Your task to perform on an android device: turn off picture-in-picture Image 0: 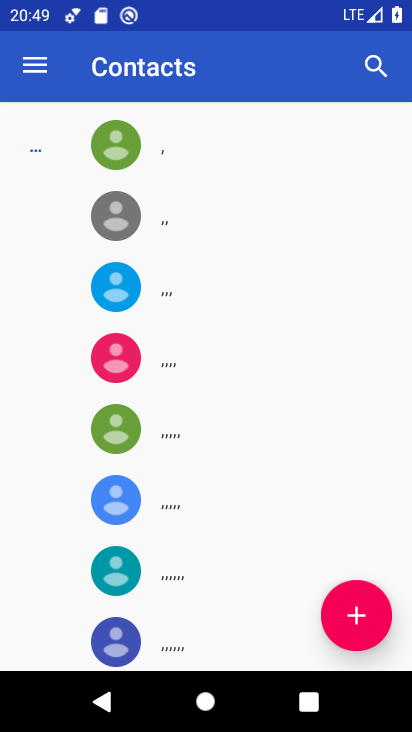
Step 0: press home button
Your task to perform on an android device: turn off picture-in-picture Image 1: 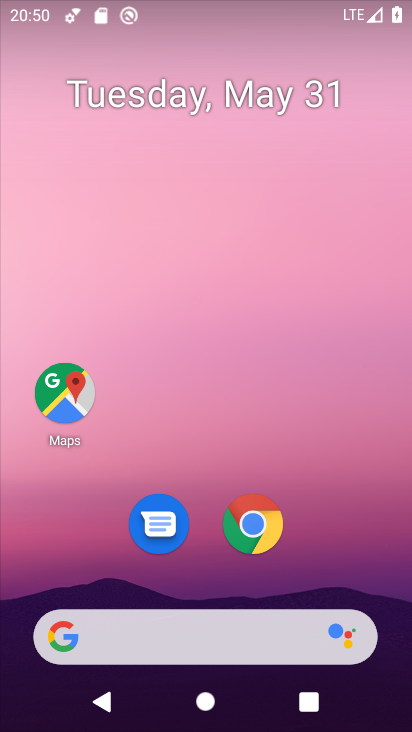
Step 1: click (259, 531)
Your task to perform on an android device: turn off picture-in-picture Image 2: 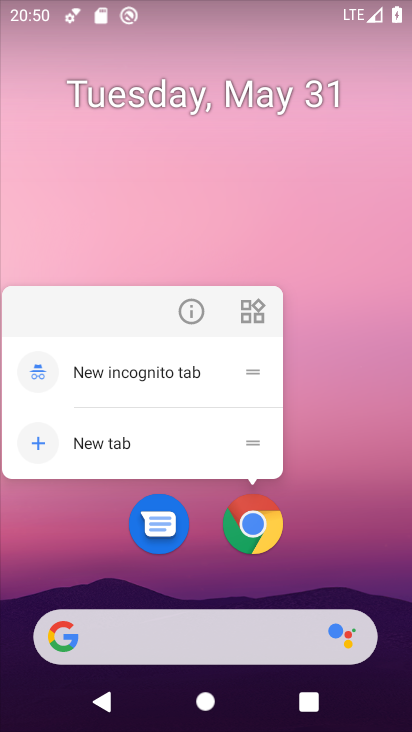
Step 2: click (192, 303)
Your task to perform on an android device: turn off picture-in-picture Image 3: 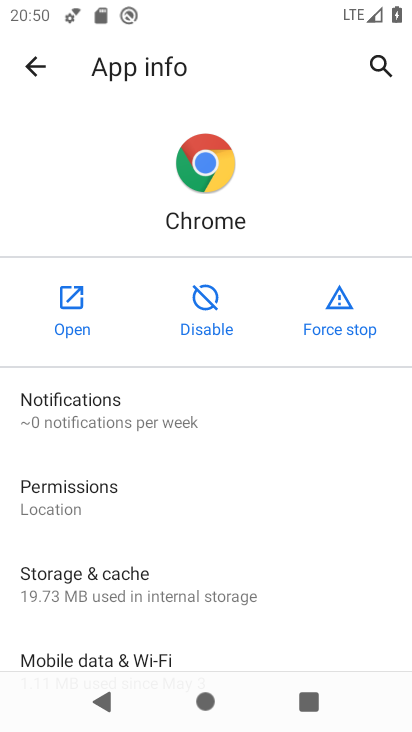
Step 3: drag from (208, 544) to (238, 163)
Your task to perform on an android device: turn off picture-in-picture Image 4: 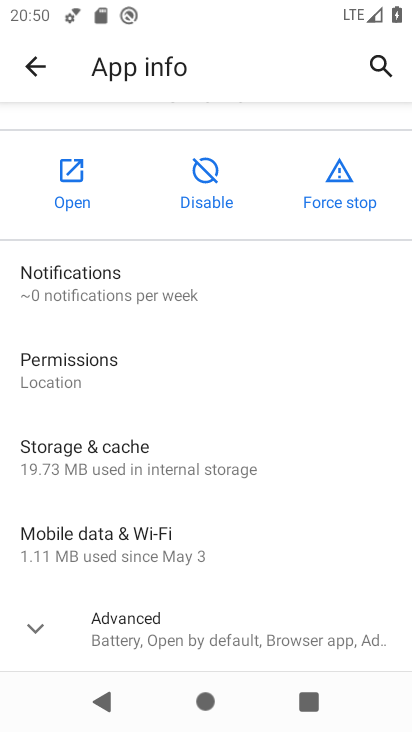
Step 4: click (33, 623)
Your task to perform on an android device: turn off picture-in-picture Image 5: 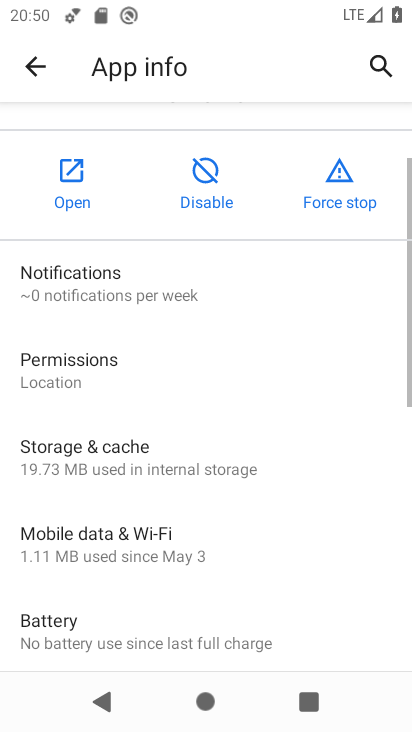
Step 5: drag from (267, 482) to (320, 0)
Your task to perform on an android device: turn off picture-in-picture Image 6: 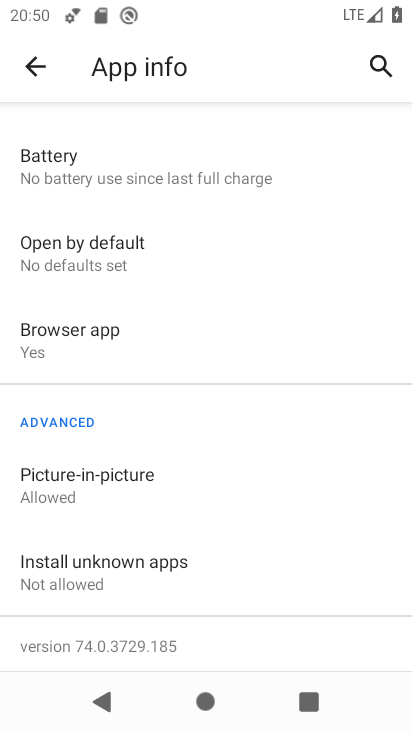
Step 6: click (91, 487)
Your task to perform on an android device: turn off picture-in-picture Image 7: 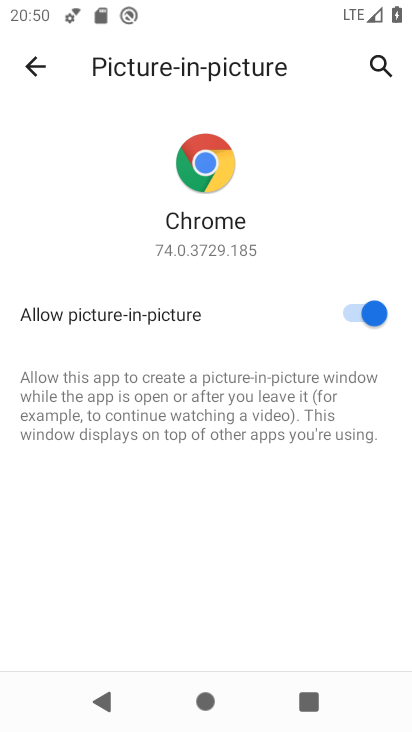
Step 7: click (357, 302)
Your task to perform on an android device: turn off picture-in-picture Image 8: 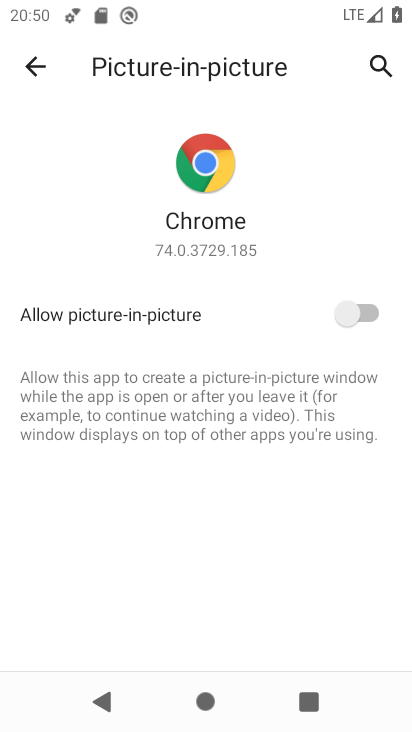
Step 8: task complete